Your task to perform on an android device: Show the shopping cart on newegg.com. Add "corsair k70" to the cart on newegg.com Image 0: 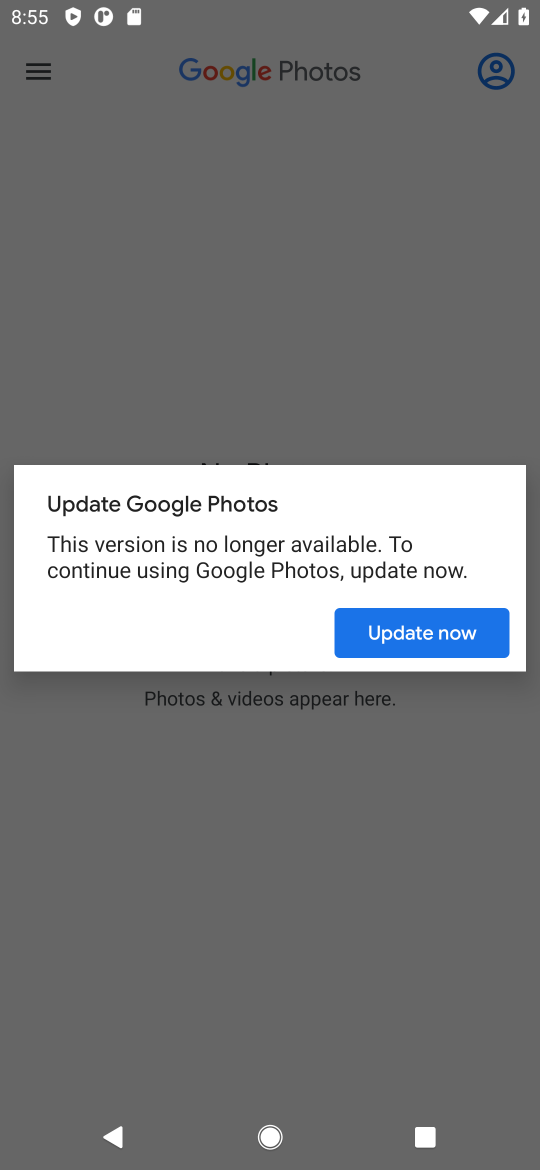
Step 0: press home button
Your task to perform on an android device: Show the shopping cart on newegg.com. Add "corsair k70" to the cart on newegg.com Image 1: 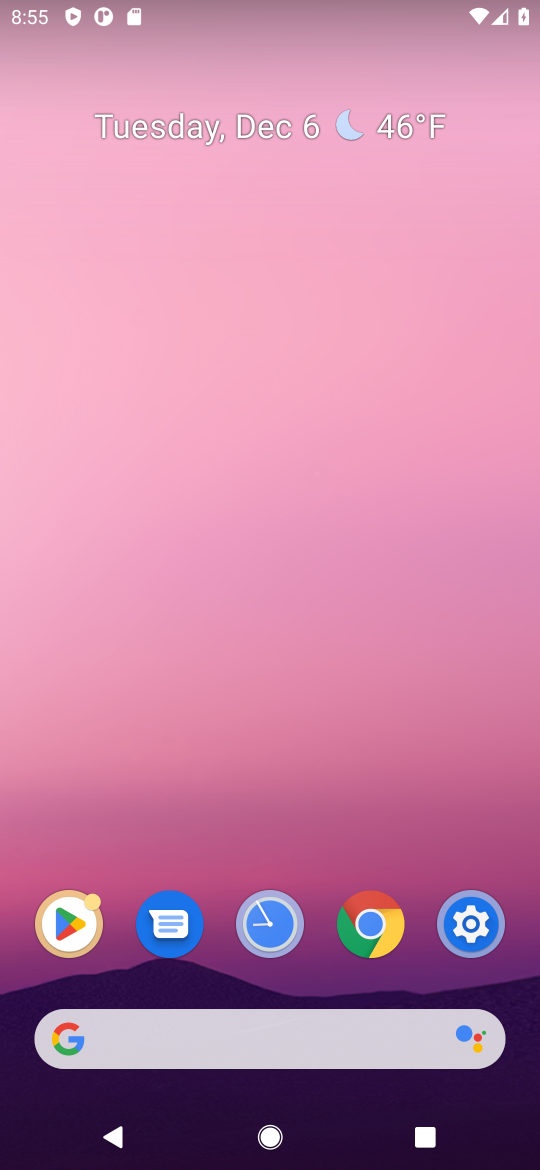
Step 1: click (291, 1055)
Your task to perform on an android device: Show the shopping cart on newegg.com. Add "corsair k70" to the cart on newegg.com Image 2: 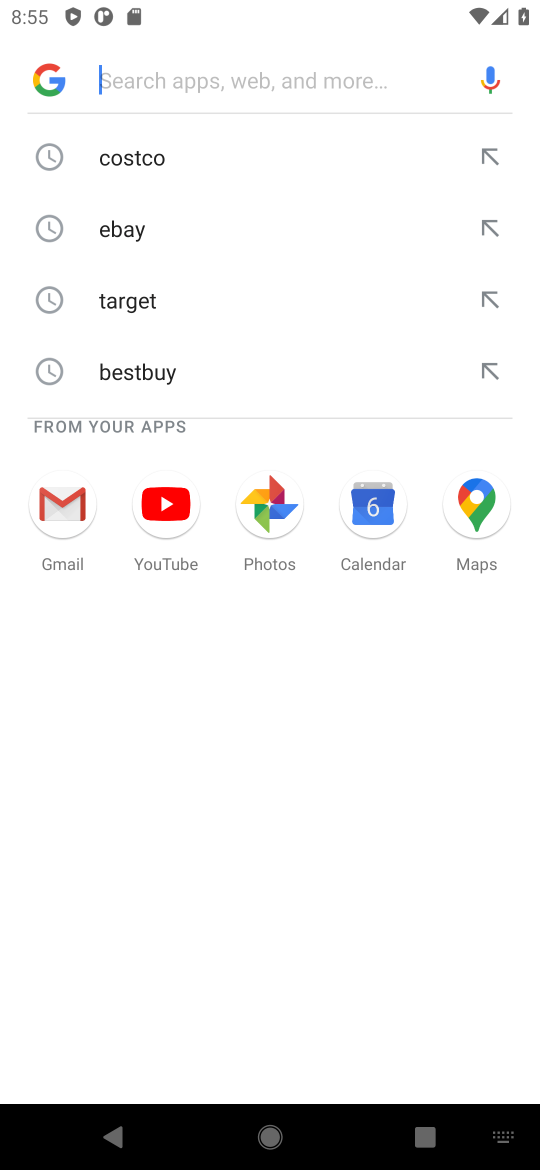
Step 2: type "newegg"
Your task to perform on an android device: Show the shopping cart on newegg.com. Add "corsair k70" to the cart on newegg.com Image 3: 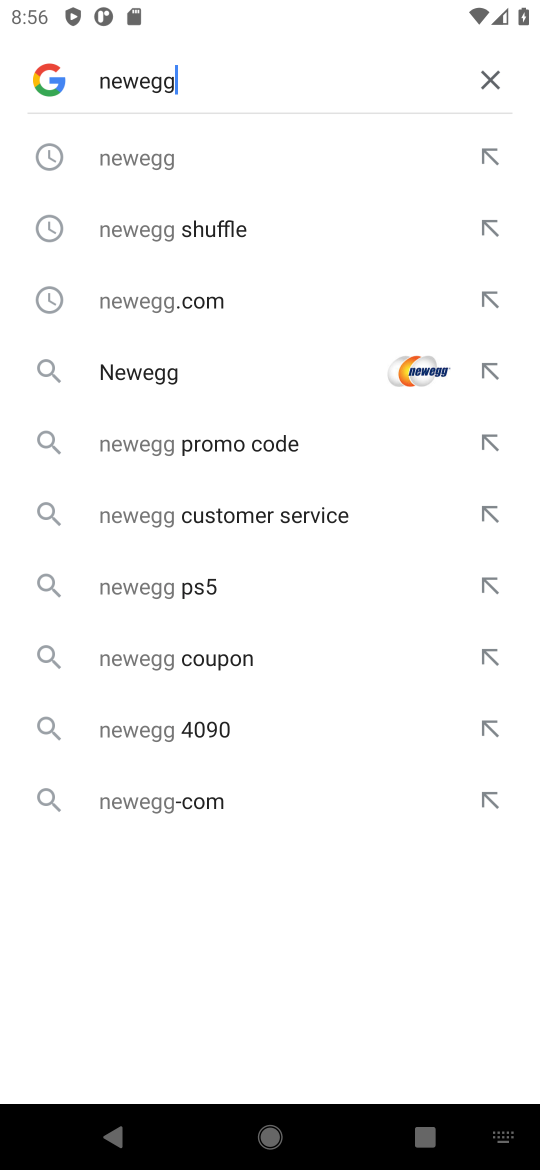
Step 3: click (226, 158)
Your task to perform on an android device: Show the shopping cart on newegg.com. Add "corsair k70" to the cart on newegg.com Image 4: 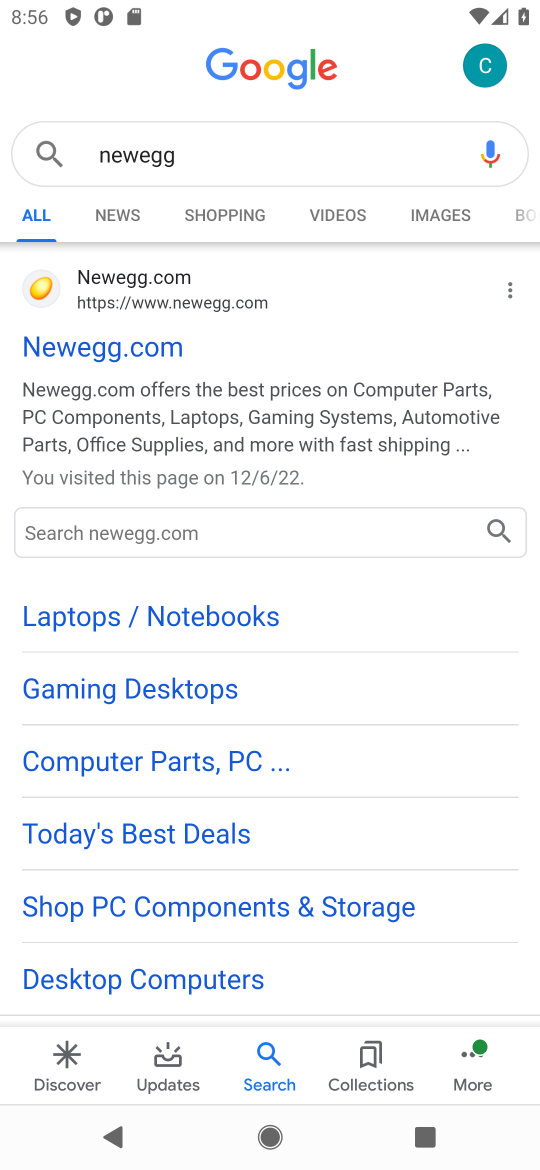
Step 4: click (102, 374)
Your task to perform on an android device: Show the shopping cart on newegg.com. Add "corsair k70" to the cart on newegg.com Image 5: 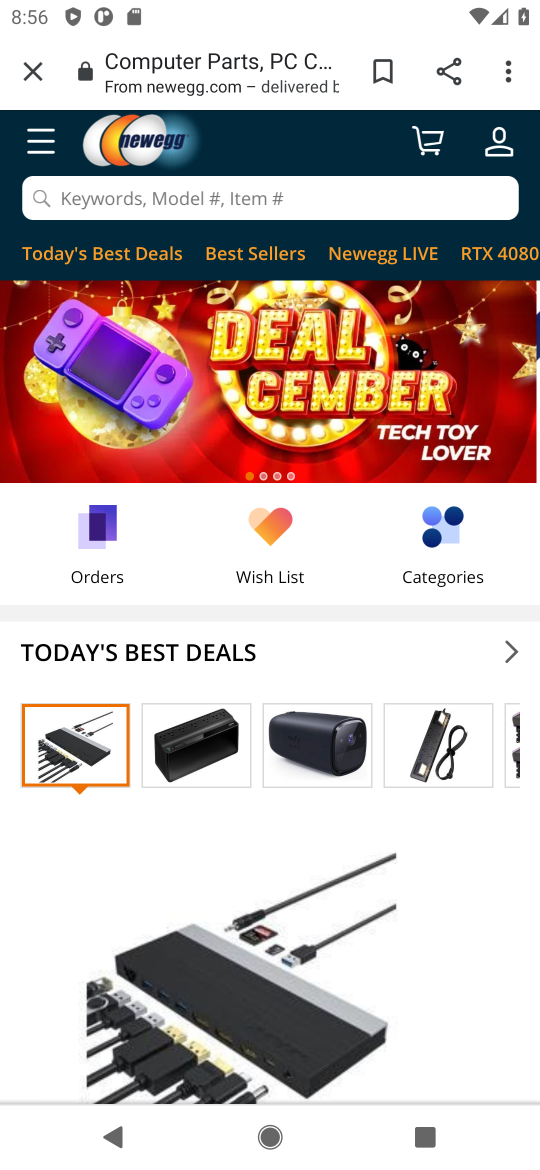
Step 5: click (255, 190)
Your task to perform on an android device: Show the shopping cart on newegg.com. Add "corsair k70" to the cart on newegg.com Image 6: 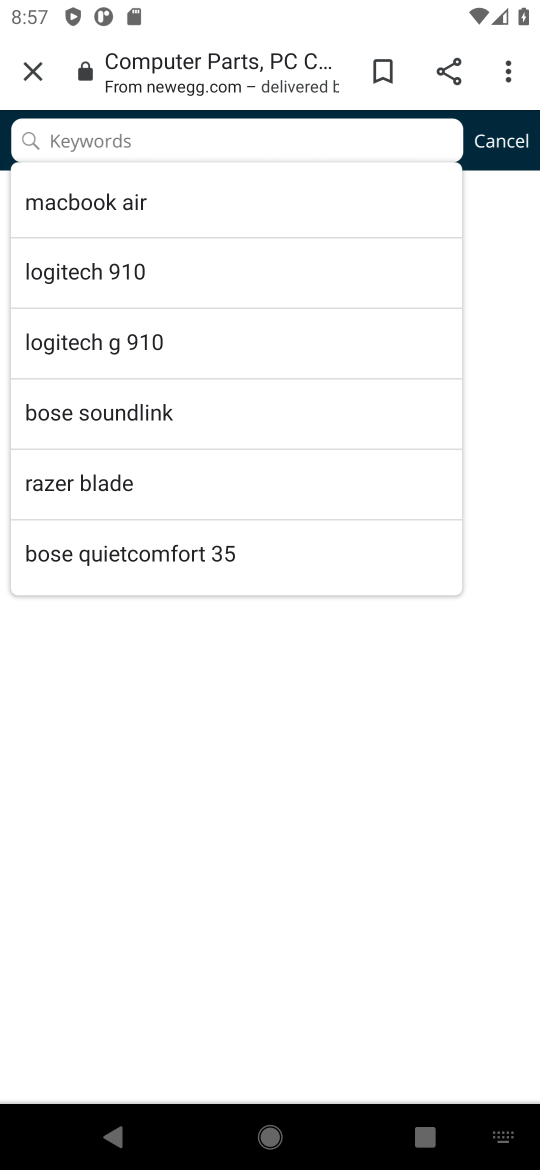
Step 6: type "corsair k70"
Your task to perform on an android device: Show the shopping cart on newegg.com. Add "corsair k70" to the cart on newegg.com Image 7: 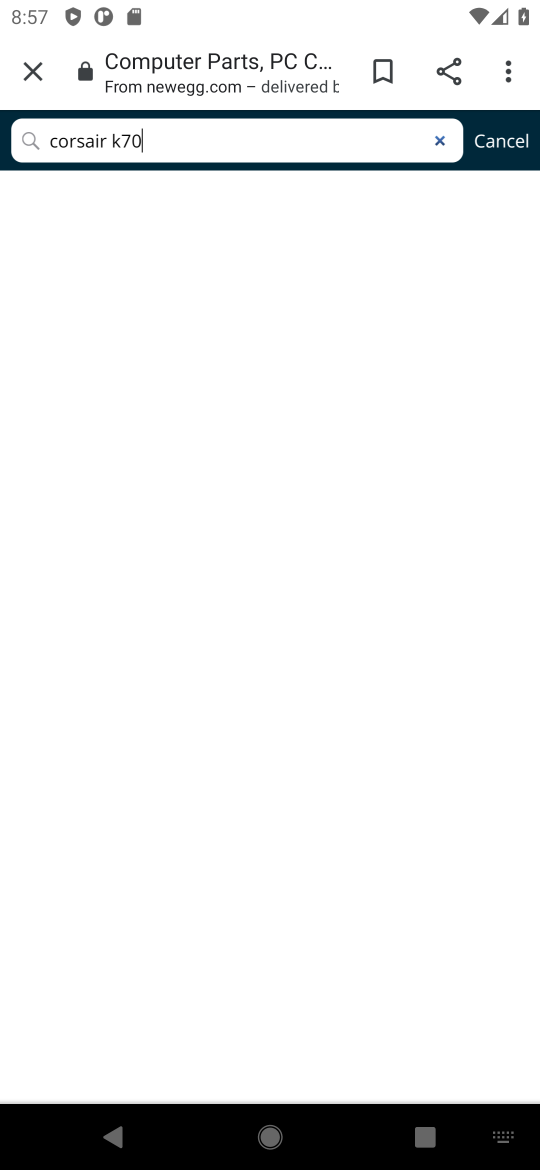
Step 7: task complete